Your task to perform on an android device: see creations saved in the google photos Image 0: 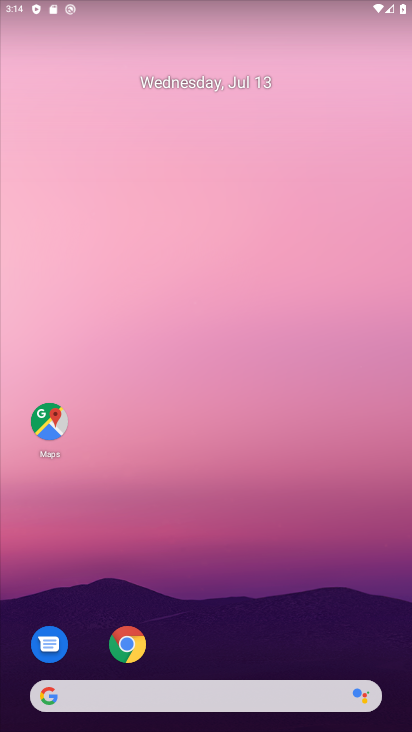
Step 0: drag from (282, 639) to (271, 104)
Your task to perform on an android device: see creations saved in the google photos Image 1: 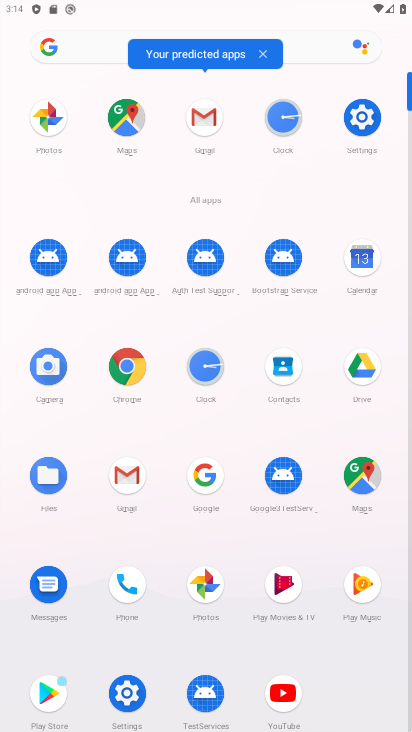
Step 1: click (44, 115)
Your task to perform on an android device: see creations saved in the google photos Image 2: 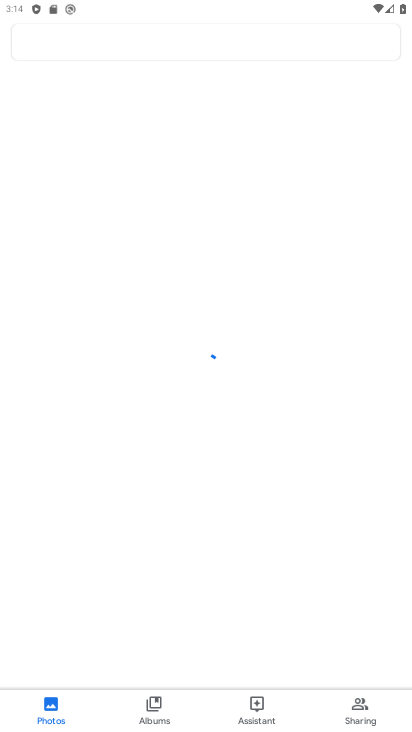
Step 2: click (131, 53)
Your task to perform on an android device: see creations saved in the google photos Image 3: 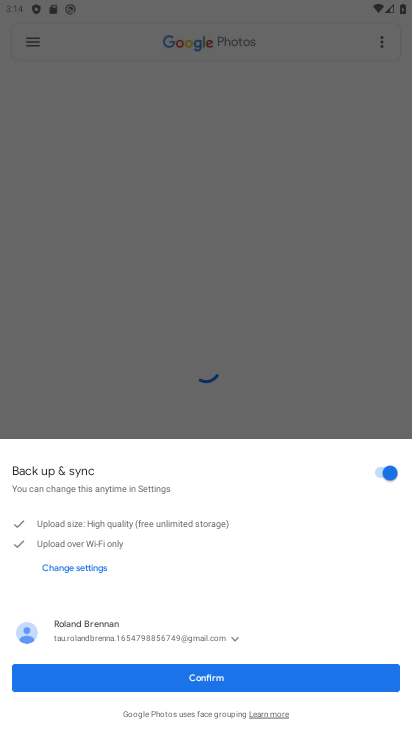
Step 3: click (216, 684)
Your task to perform on an android device: see creations saved in the google photos Image 4: 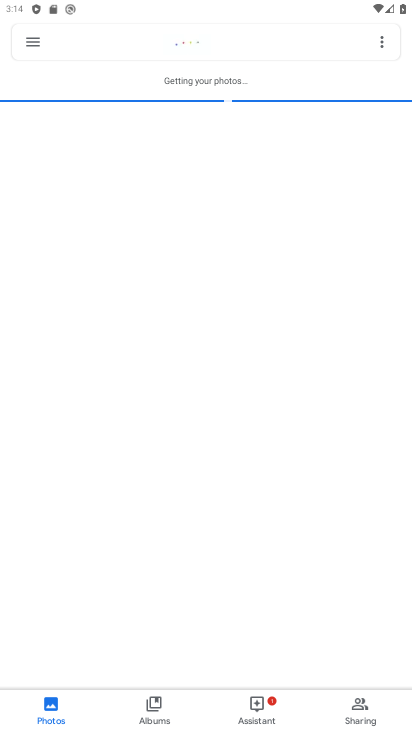
Step 4: click (193, 45)
Your task to perform on an android device: see creations saved in the google photos Image 5: 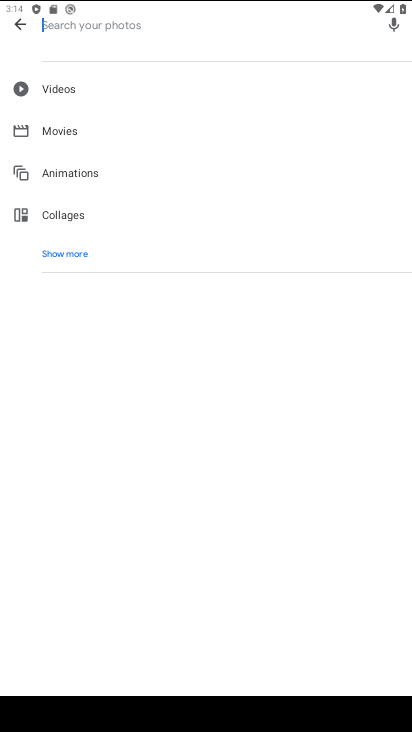
Step 5: click (63, 256)
Your task to perform on an android device: see creations saved in the google photos Image 6: 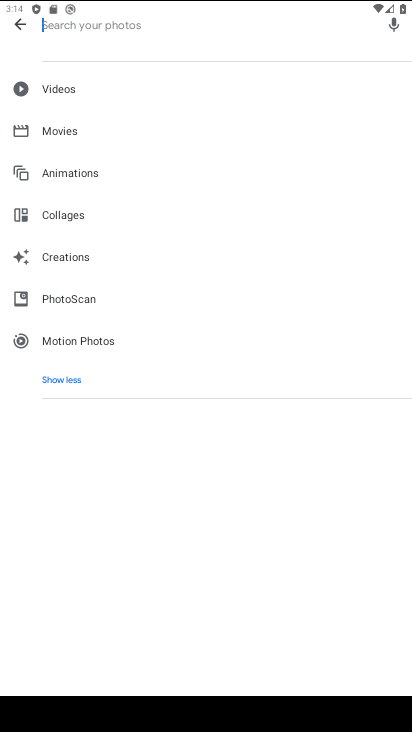
Step 6: click (82, 260)
Your task to perform on an android device: see creations saved in the google photos Image 7: 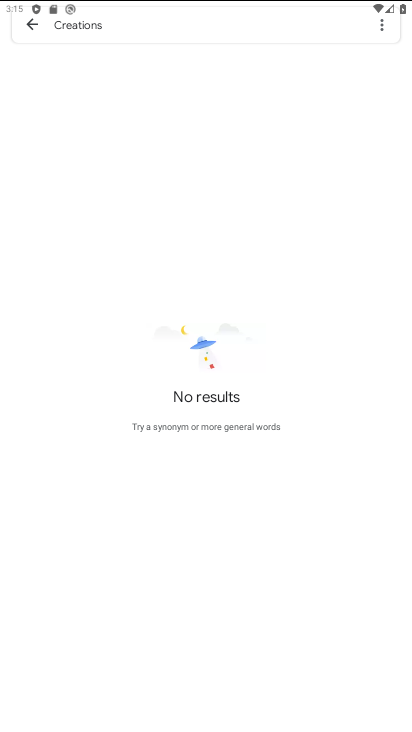
Step 7: task complete